Your task to perform on an android device: change the clock display to analog Image 0: 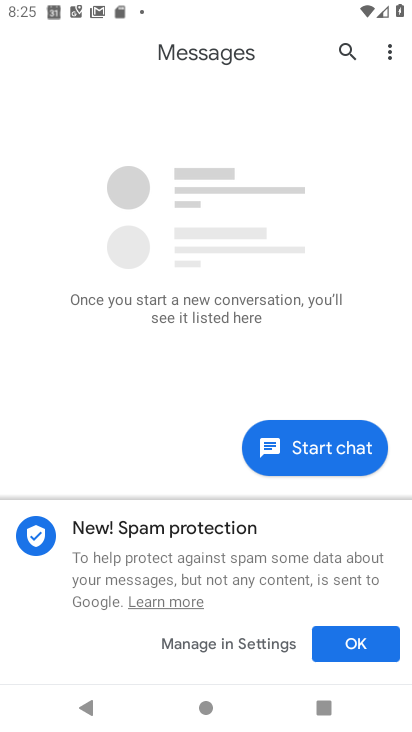
Step 0: click (313, 80)
Your task to perform on an android device: change the clock display to analog Image 1: 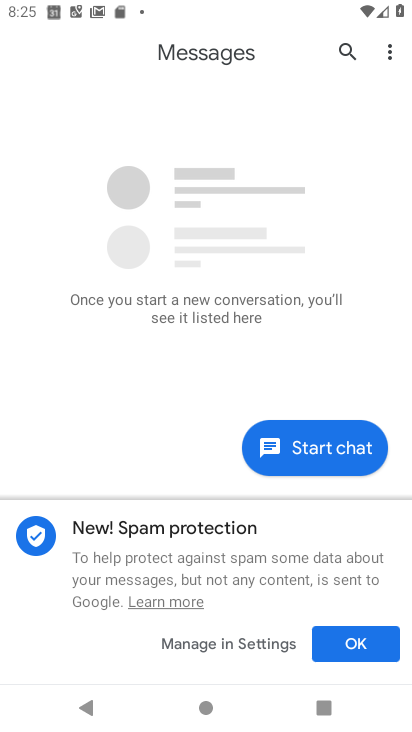
Step 1: press home button
Your task to perform on an android device: change the clock display to analog Image 2: 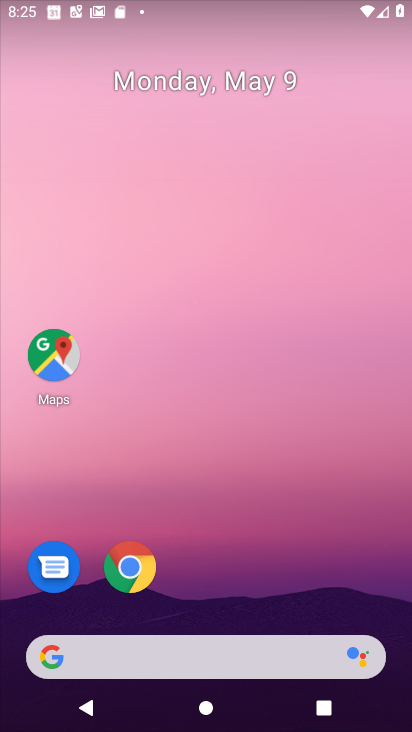
Step 2: drag from (233, 477) to (282, 50)
Your task to perform on an android device: change the clock display to analog Image 3: 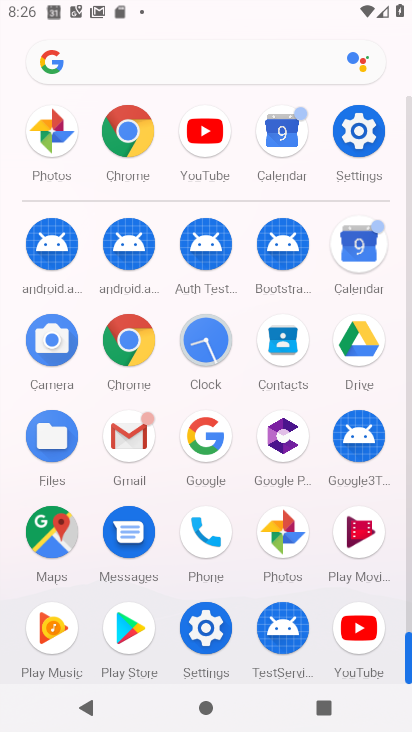
Step 3: click (206, 342)
Your task to perform on an android device: change the clock display to analog Image 4: 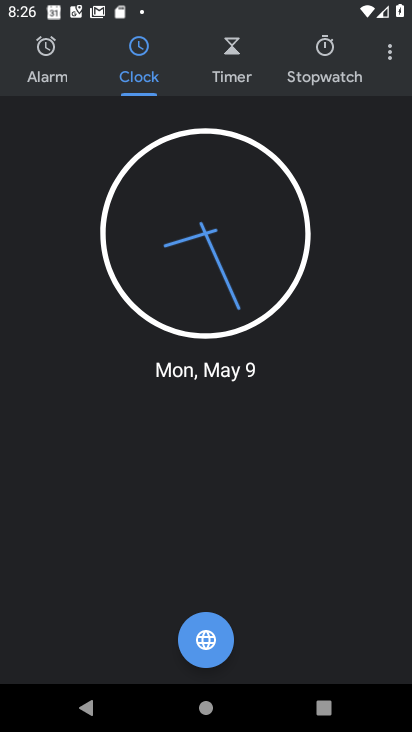
Step 4: click (393, 59)
Your task to perform on an android device: change the clock display to analog Image 5: 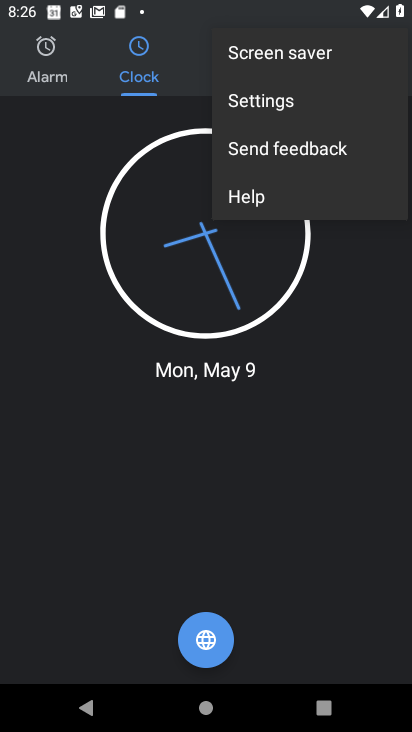
Step 5: click (292, 107)
Your task to perform on an android device: change the clock display to analog Image 6: 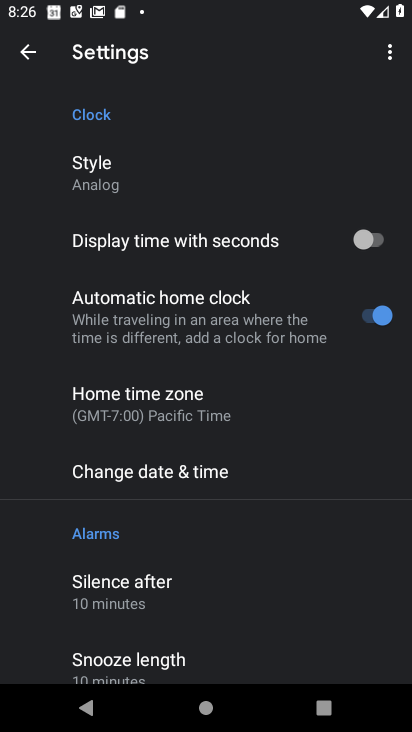
Step 6: click (166, 189)
Your task to perform on an android device: change the clock display to analog Image 7: 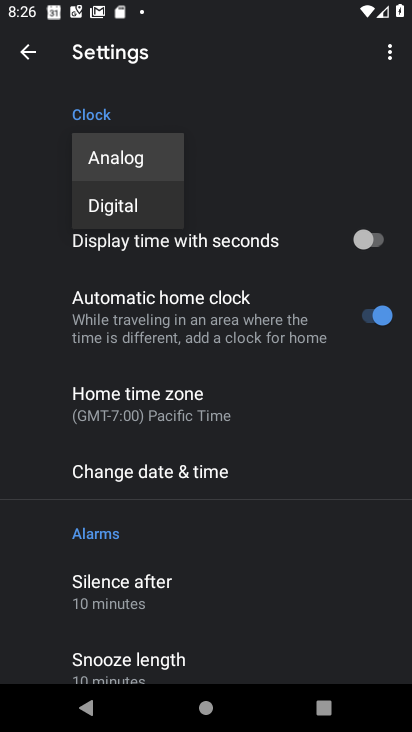
Step 7: task complete